Your task to perform on an android device: uninstall "Microsoft Authenticator" Image 0: 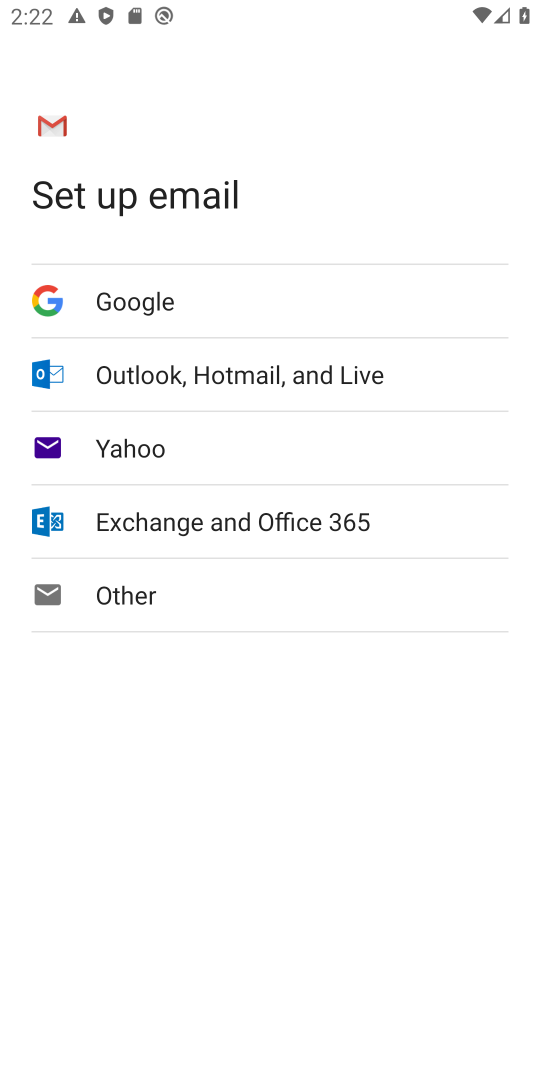
Step 0: press home button
Your task to perform on an android device: uninstall "Microsoft Authenticator" Image 1: 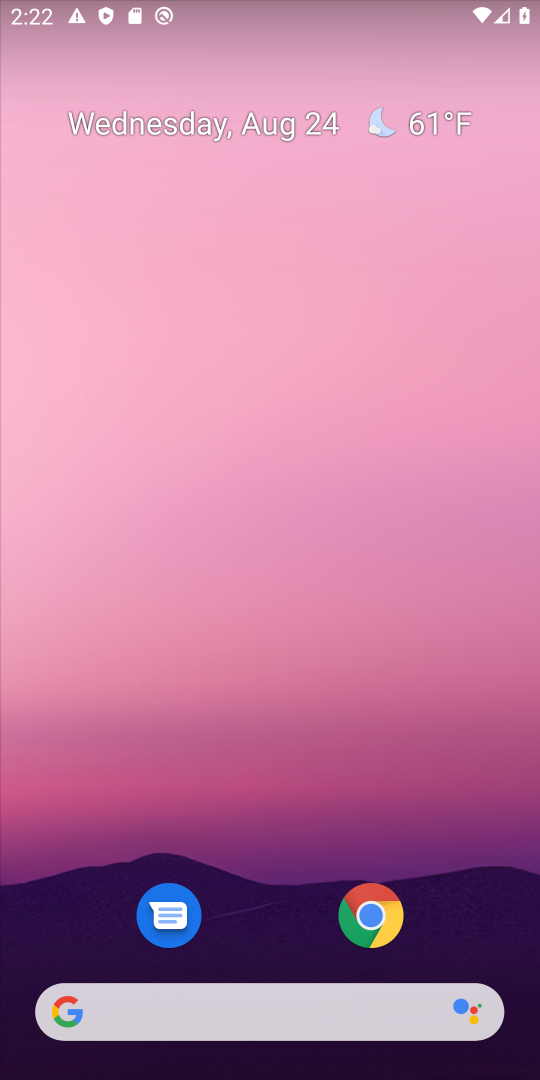
Step 1: drag from (297, 857) to (310, 185)
Your task to perform on an android device: uninstall "Microsoft Authenticator" Image 2: 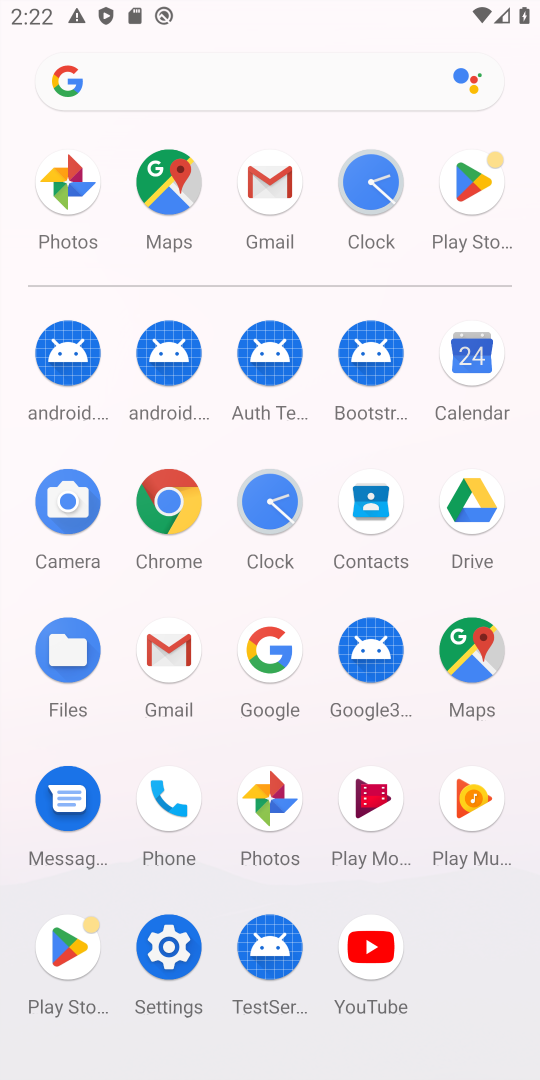
Step 2: click (463, 197)
Your task to perform on an android device: uninstall "Microsoft Authenticator" Image 3: 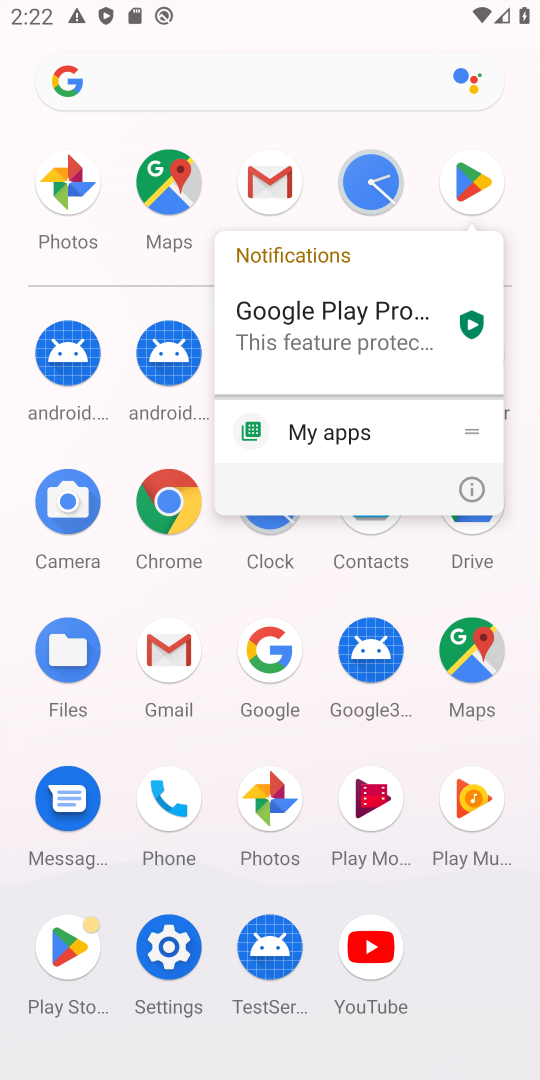
Step 3: click (463, 197)
Your task to perform on an android device: uninstall "Microsoft Authenticator" Image 4: 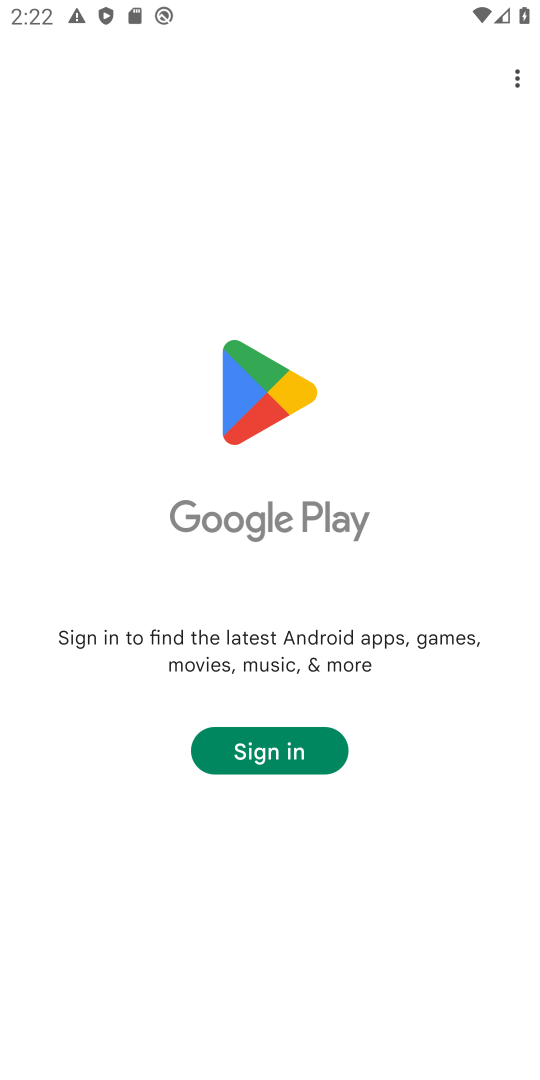
Step 4: task complete